Your task to perform on an android device: uninstall "TextNow: Call + Text Unlimited" Image 0: 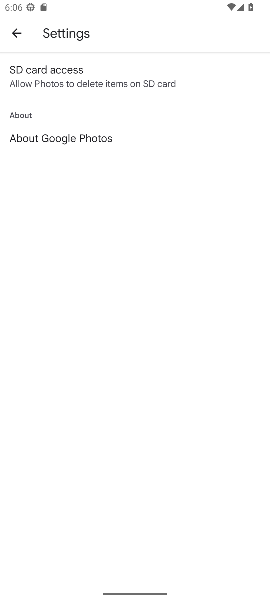
Step 0: press home button
Your task to perform on an android device: uninstall "TextNow: Call + Text Unlimited" Image 1: 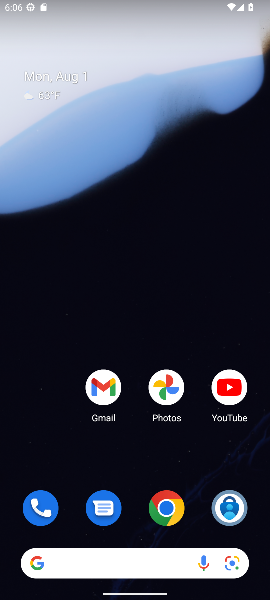
Step 1: drag from (139, 547) to (151, 139)
Your task to perform on an android device: uninstall "TextNow: Call + Text Unlimited" Image 2: 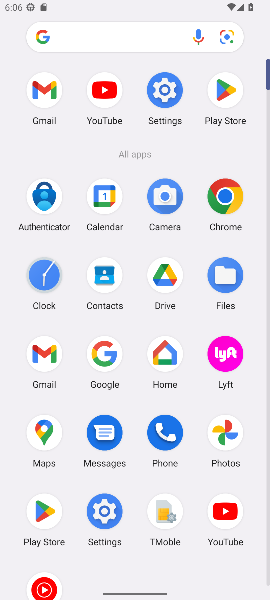
Step 2: click (57, 516)
Your task to perform on an android device: uninstall "TextNow: Call + Text Unlimited" Image 3: 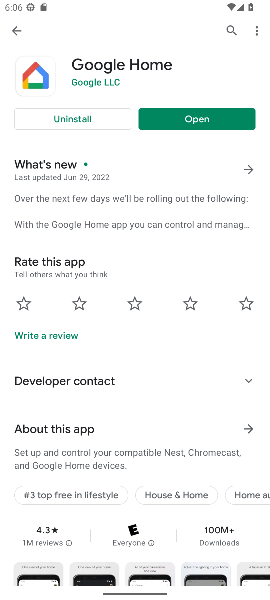
Step 3: click (22, 37)
Your task to perform on an android device: uninstall "TextNow: Call + Text Unlimited" Image 4: 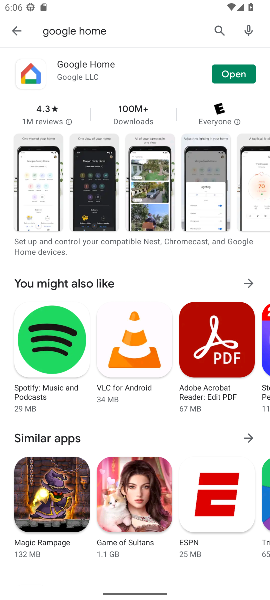
Step 4: click (20, 33)
Your task to perform on an android device: uninstall "TextNow: Call + Text Unlimited" Image 5: 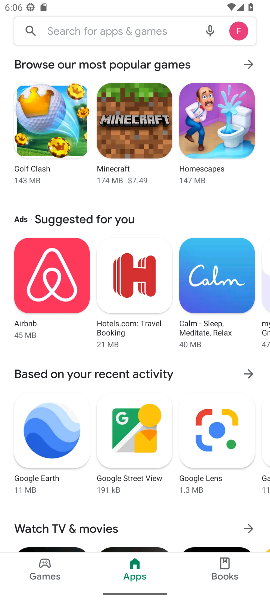
Step 5: click (119, 29)
Your task to perform on an android device: uninstall "TextNow: Call + Text Unlimited" Image 6: 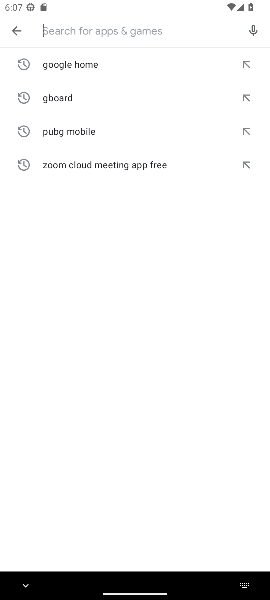
Step 6: type "TextNow: Call + Text Unlimited"
Your task to perform on an android device: uninstall "TextNow: Call + Text Unlimited" Image 7: 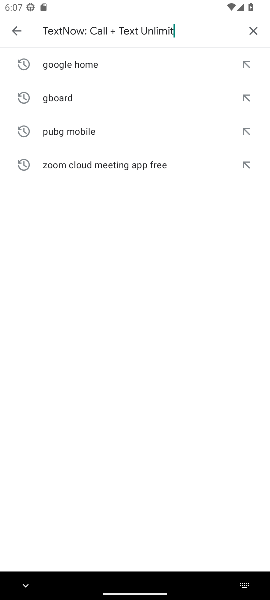
Step 7: type ""
Your task to perform on an android device: uninstall "TextNow: Call + Text Unlimited" Image 8: 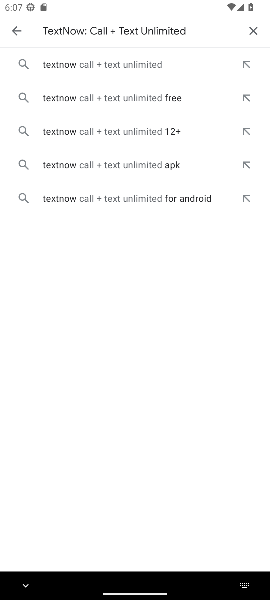
Step 8: click (67, 59)
Your task to perform on an android device: uninstall "TextNow: Call + Text Unlimited" Image 9: 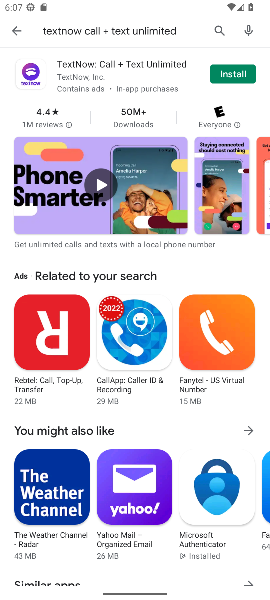
Step 9: click (70, 82)
Your task to perform on an android device: uninstall "TextNow: Call + Text Unlimited" Image 10: 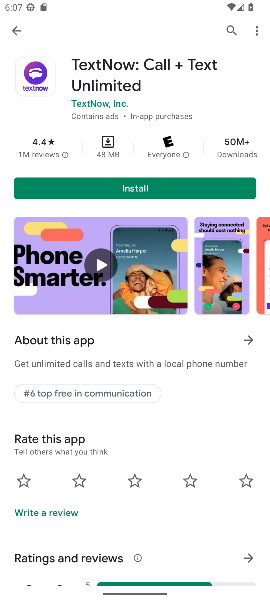
Step 10: task complete